Your task to perform on an android device: Check the weather Image 0: 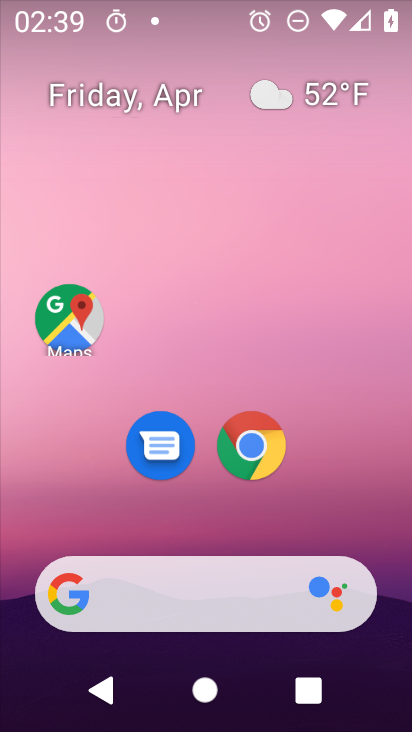
Step 0: click (208, 590)
Your task to perform on an android device: Check the weather Image 1: 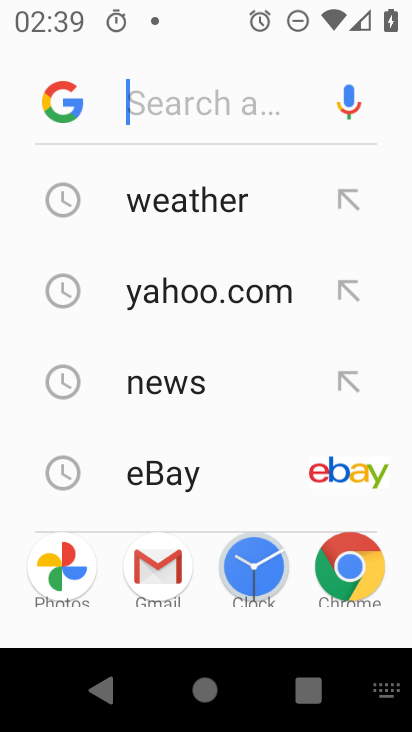
Step 1: click (197, 206)
Your task to perform on an android device: Check the weather Image 2: 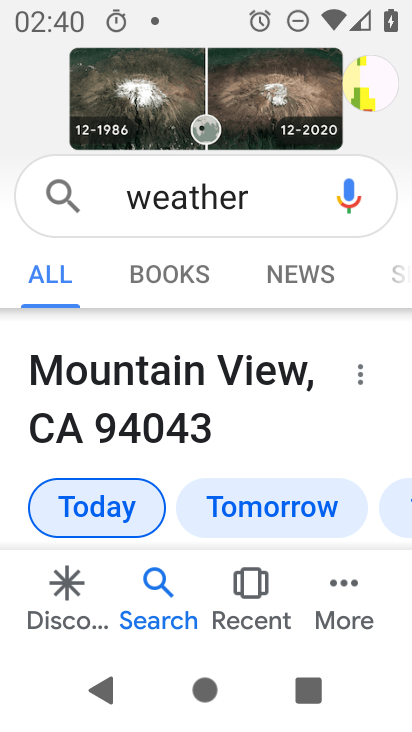
Step 2: task complete